Your task to perform on an android device: change timer sound Image 0: 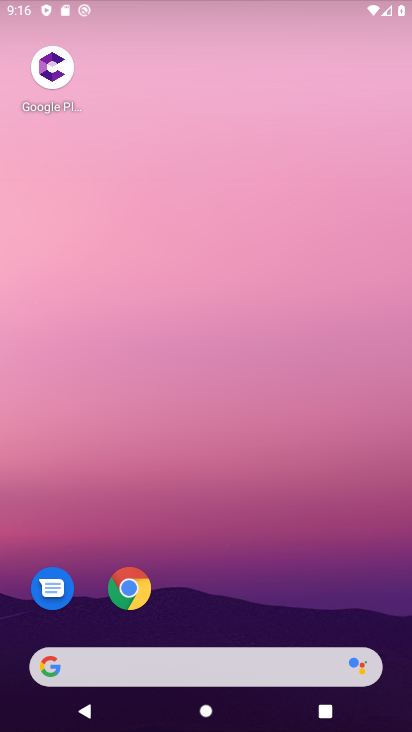
Step 0: drag from (298, 578) to (228, 125)
Your task to perform on an android device: change timer sound Image 1: 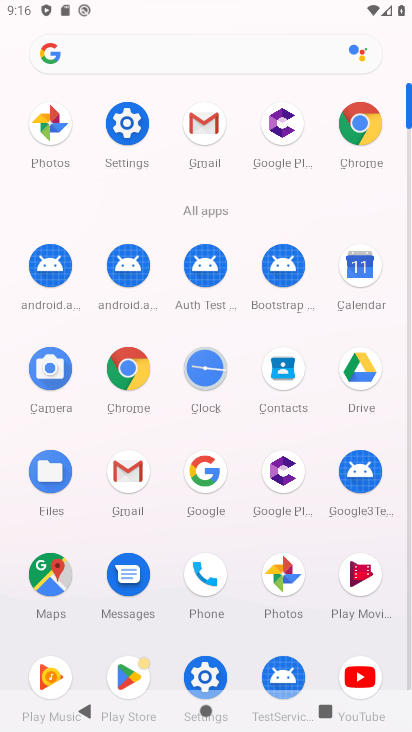
Step 1: click (216, 347)
Your task to perform on an android device: change timer sound Image 2: 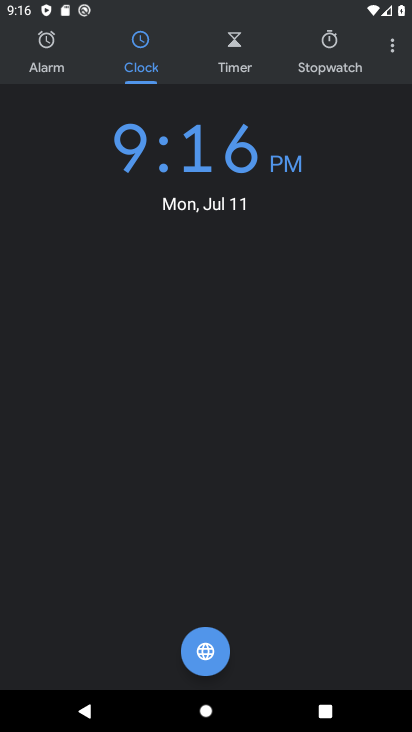
Step 2: click (395, 58)
Your task to perform on an android device: change timer sound Image 3: 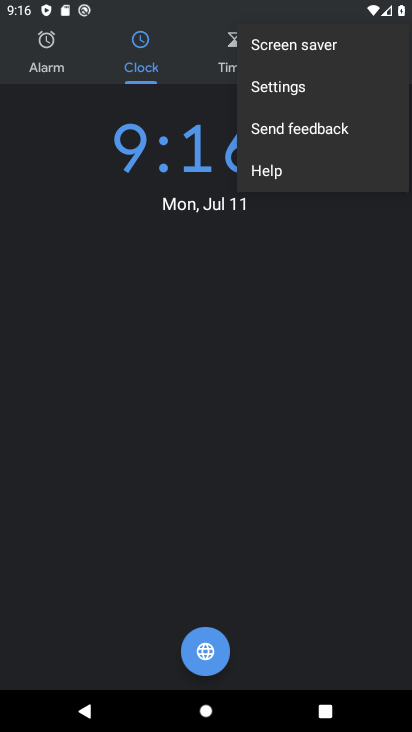
Step 3: click (317, 87)
Your task to perform on an android device: change timer sound Image 4: 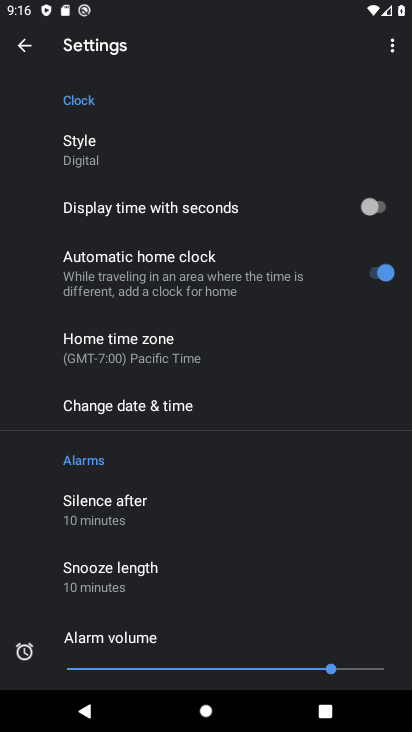
Step 4: drag from (182, 438) to (129, 3)
Your task to perform on an android device: change timer sound Image 5: 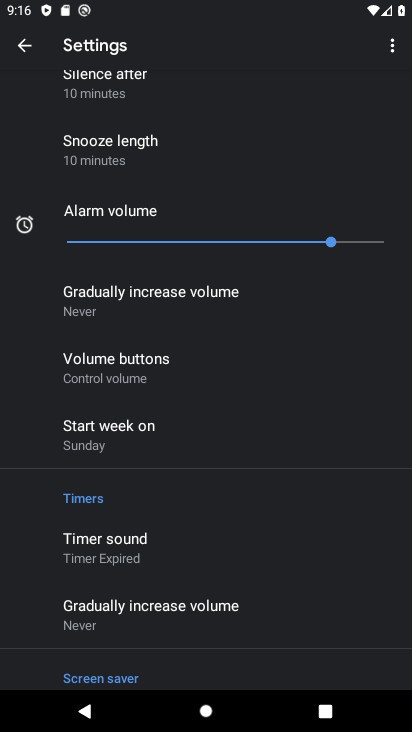
Step 5: drag from (159, 408) to (159, 117)
Your task to perform on an android device: change timer sound Image 6: 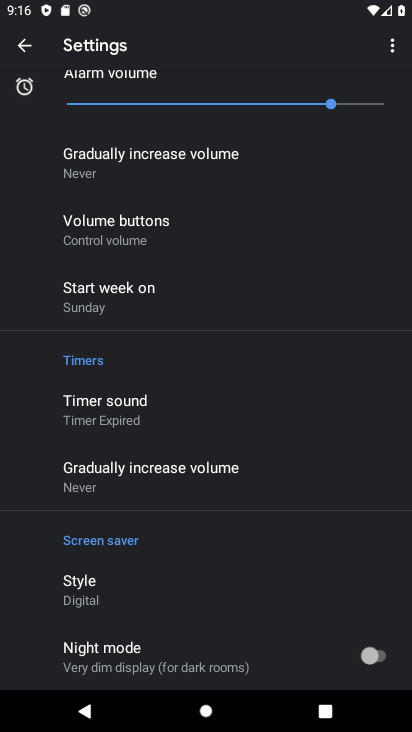
Step 6: click (171, 400)
Your task to perform on an android device: change timer sound Image 7: 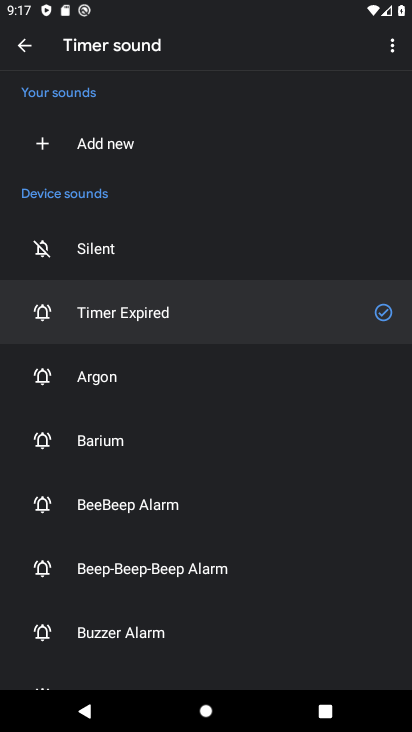
Step 7: click (171, 400)
Your task to perform on an android device: change timer sound Image 8: 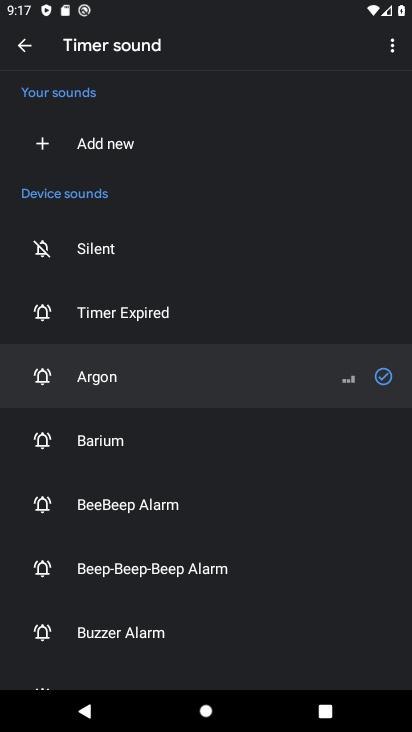
Step 8: task complete